Your task to perform on an android device: clear history in the chrome app Image 0: 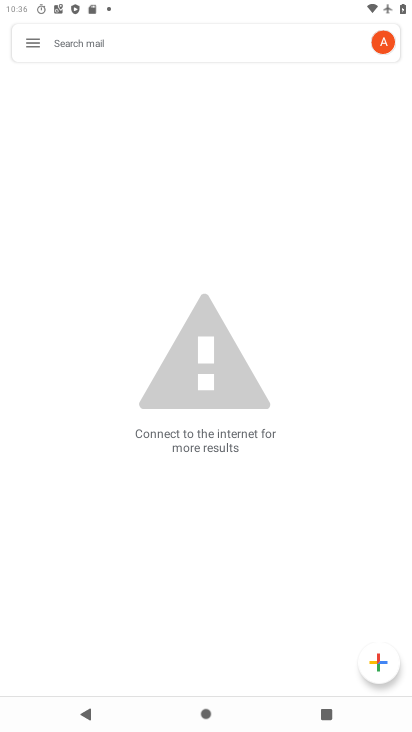
Step 0: press home button
Your task to perform on an android device: clear history in the chrome app Image 1: 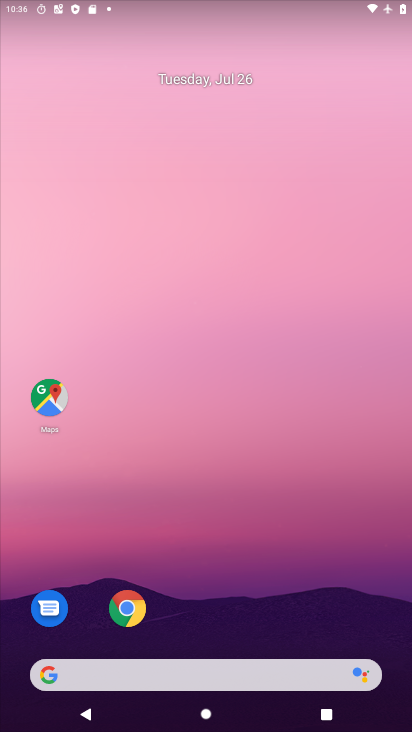
Step 1: click (129, 612)
Your task to perform on an android device: clear history in the chrome app Image 2: 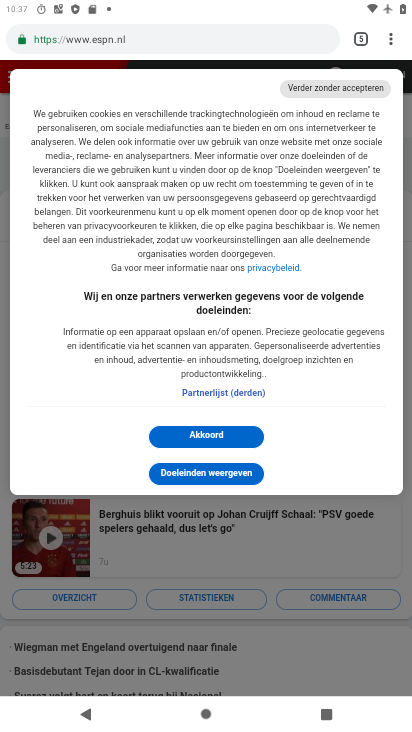
Step 2: click (387, 38)
Your task to perform on an android device: clear history in the chrome app Image 3: 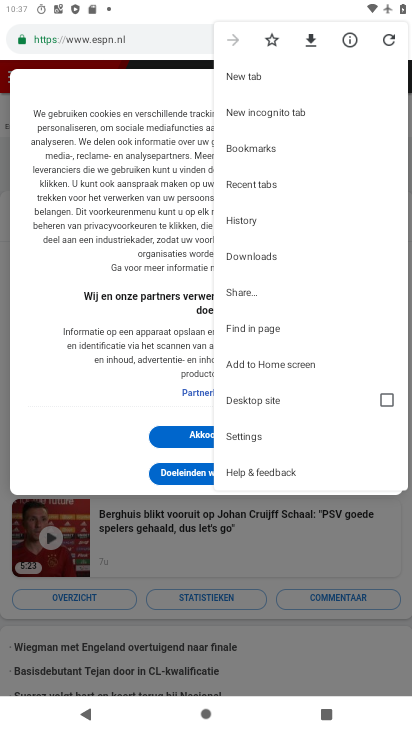
Step 3: click (270, 214)
Your task to perform on an android device: clear history in the chrome app Image 4: 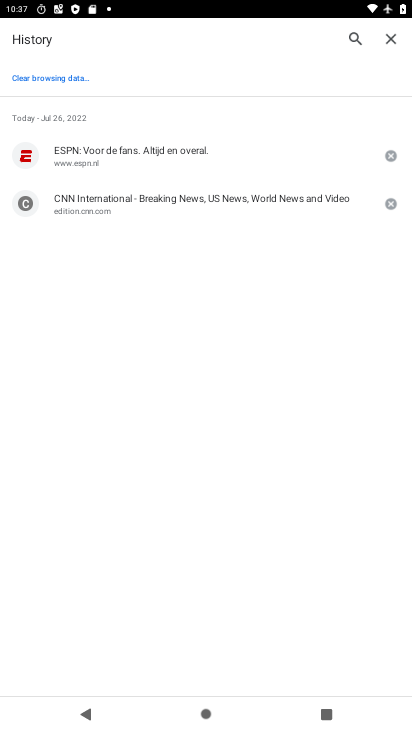
Step 4: click (59, 77)
Your task to perform on an android device: clear history in the chrome app Image 5: 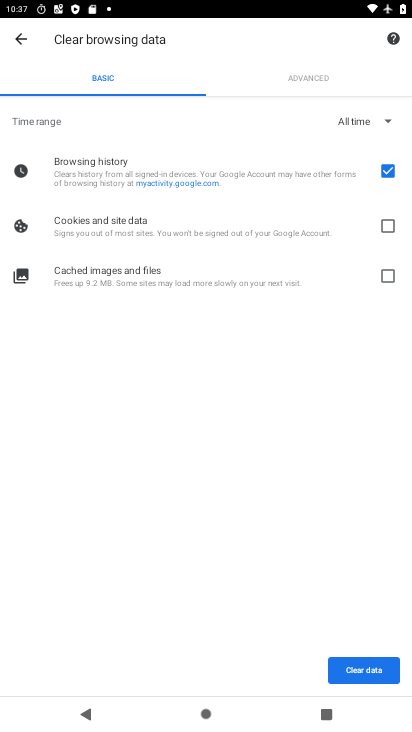
Step 5: click (376, 229)
Your task to perform on an android device: clear history in the chrome app Image 6: 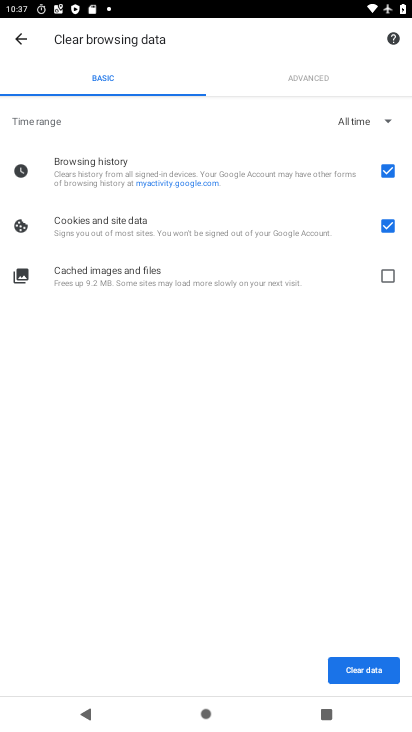
Step 6: click (399, 280)
Your task to perform on an android device: clear history in the chrome app Image 7: 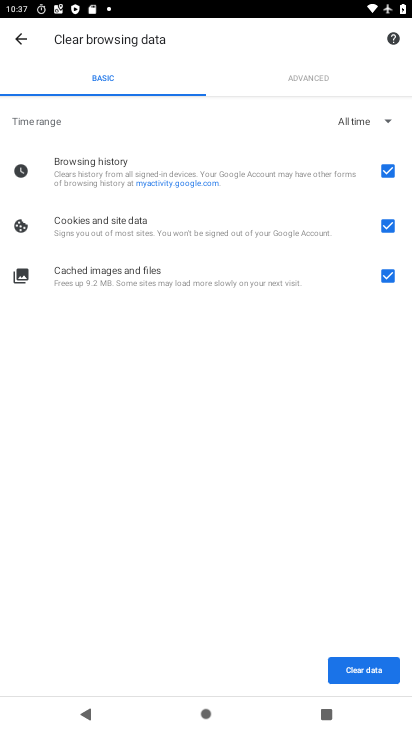
Step 7: click (372, 665)
Your task to perform on an android device: clear history in the chrome app Image 8: 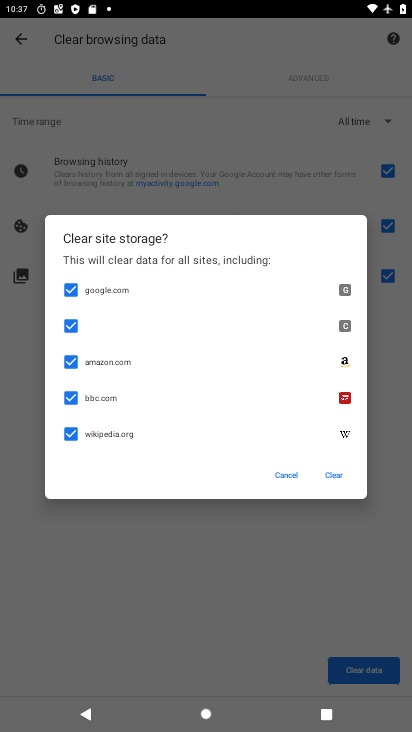
Step 8: click (336, 475)
Your task to perform on an android device: clear history in the chrome app Image 9: 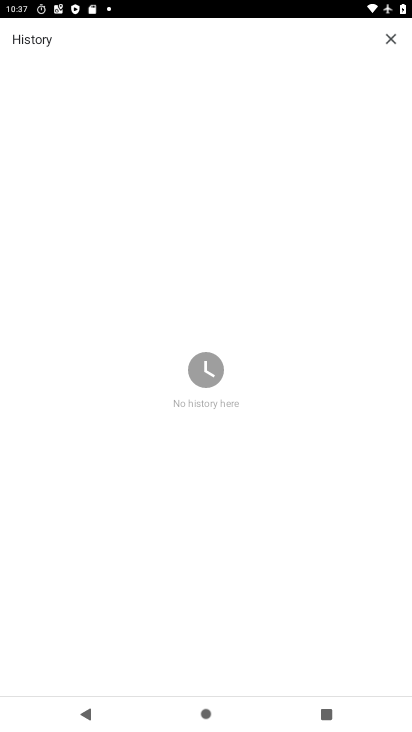
Step 9: task complete